Your task to perform on an android device: turn off javascript in the chrome app Image 0: 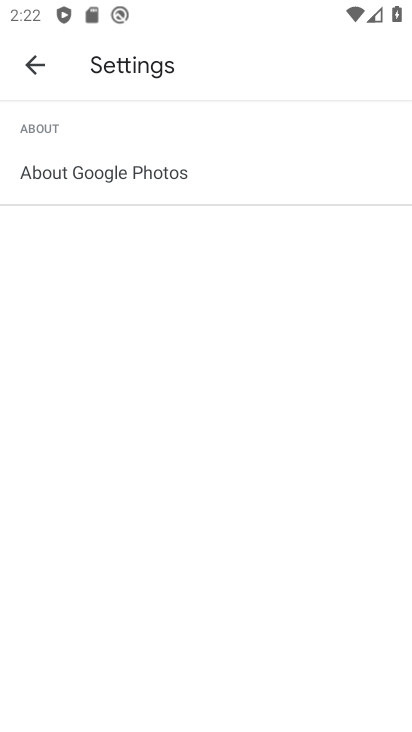
Step 0: press home button
Your task to perform on an android device: turn off javascript in the chrome app Image 1: 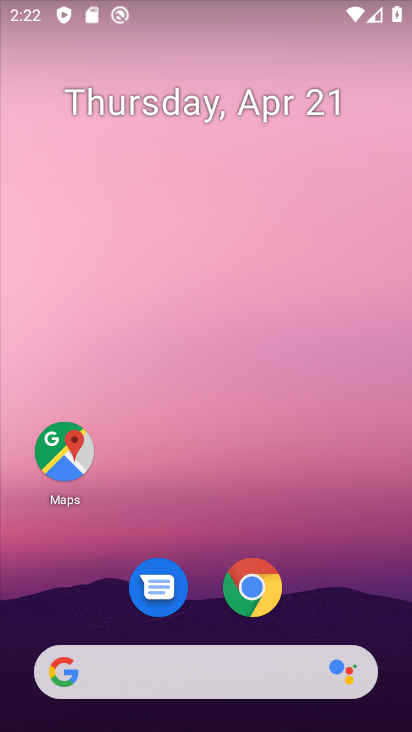
Step 1: drag from (336, 590) to (333, 109)
Your task to perform on an android device: turn off javascript in the chrome app Image 2: 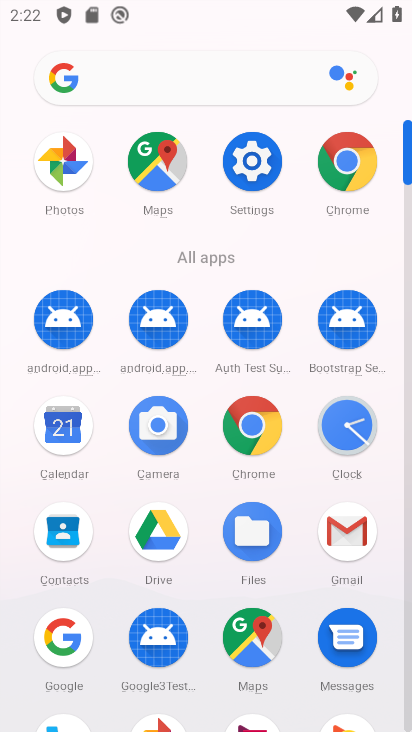
Step 2: click (254, 415)
Your task to perform on an android device: turn off javascript in the chrome app Image 3: 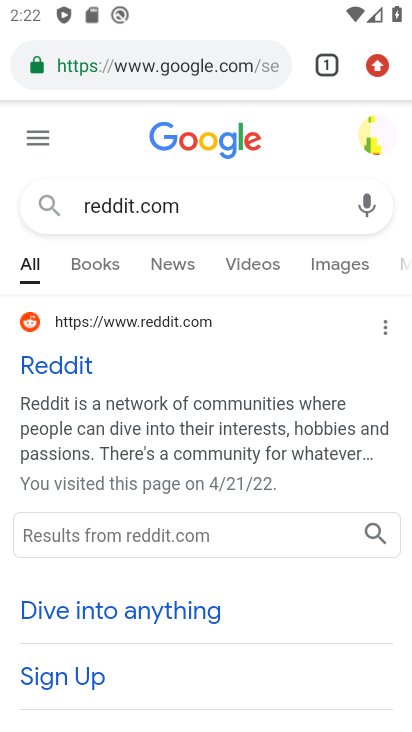
Step 3: click (378, 68)
Your task to perform on an android device: turn off javascript in the chrome app Image 4: 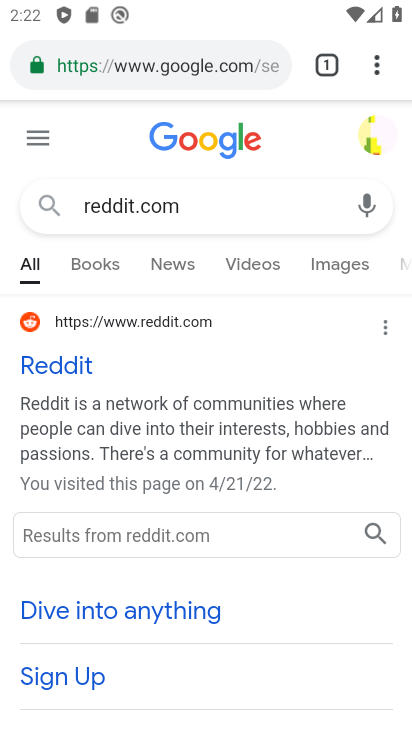
Step 4: click (379, 67)
Your task to perform on an android device: turn off javascript in the chrome app Image 5: 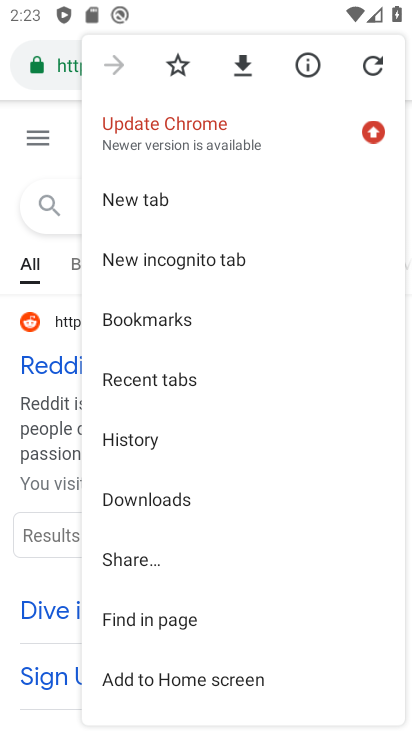
Step 5: drag from (333, 550) to (344, 338)
Your task to perform on an android device: turn off javascript in the chrome app Image 6: 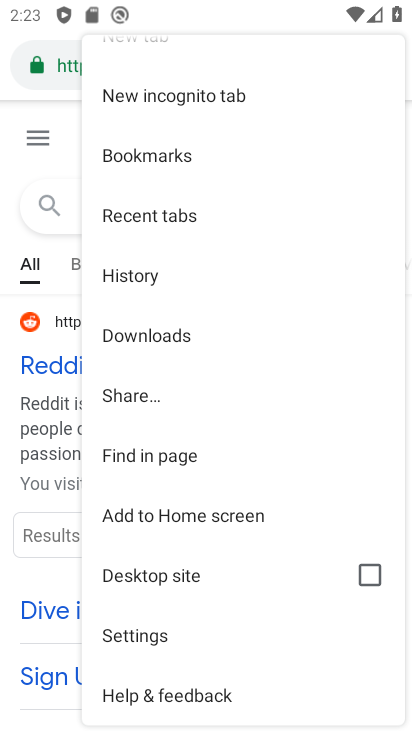
Step 6: click (153, 635)
Your task to perform on an android device: turn off javascript in the chrome app Image 7: 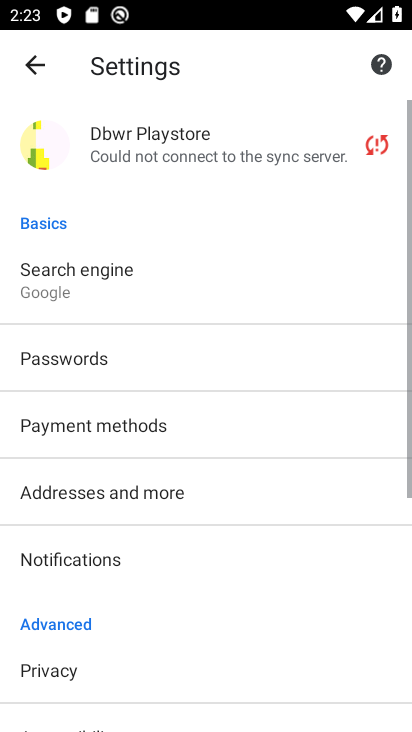
Step 7: drag from (287, 602) to (289, 448)
Your task to perform on an android device: turn off javascript in the chrome app Image 8: 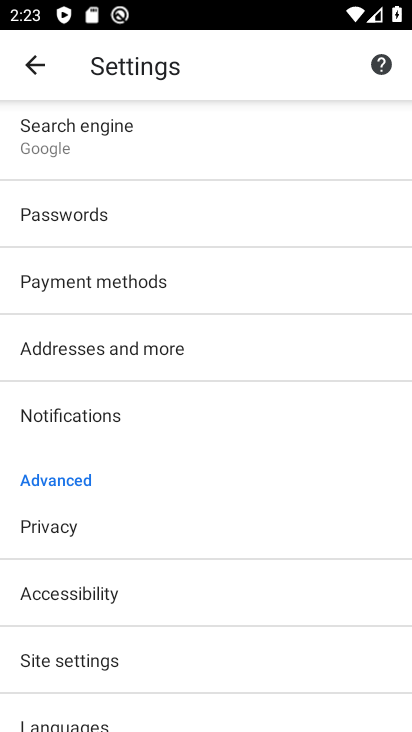
Step 8: drag from (292, 612) to (304, 451)
Your task to perform on an android device: turn off javascript in the chrome app Image 9: 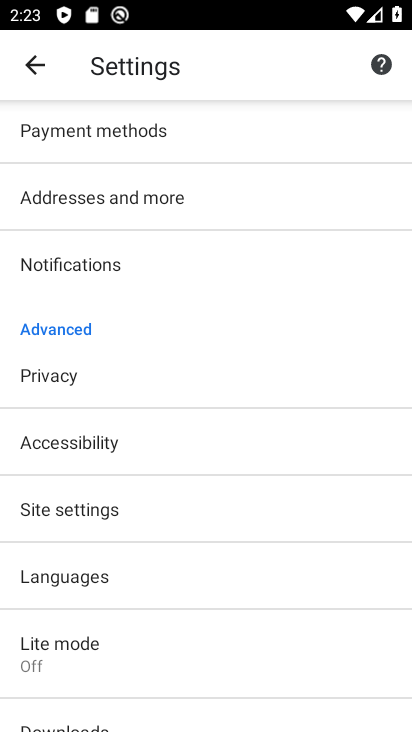
Step 9: drag from (276, 634) to (298, 487)
Your task to perform on an android device: turn off javascript in the chrome app Image 10: 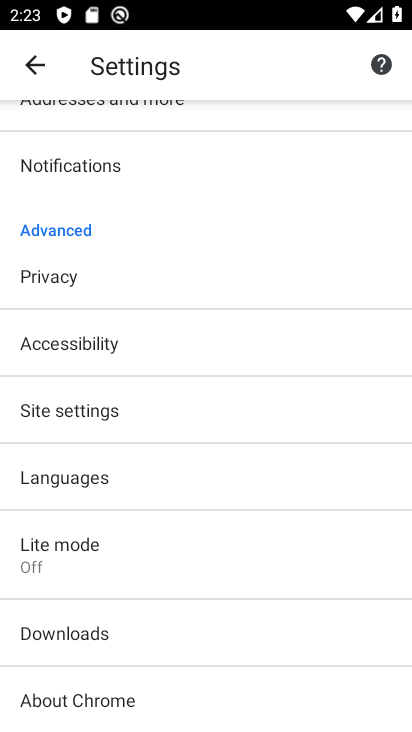
Step 10: drag from (267, 682) to (287, 466)
Your task to perform on an android device: turn off javascript in the chrome app Image 11: 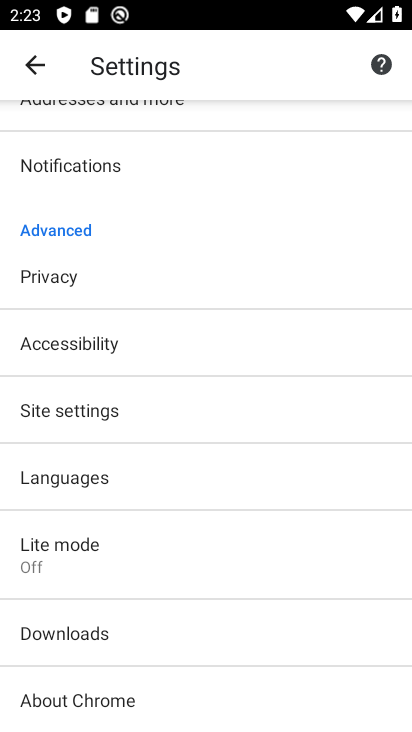
Step 11: click (282, 400)
Your task to perform on an android device: turn off javascript in the chrome app Image 12: 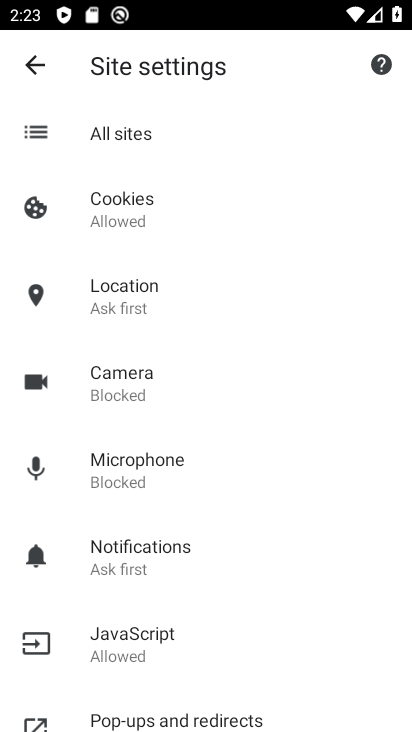
Step 12: drag from (322, 528) to (326, 440)
Your task to perform on an android device: turn off javascript in the chrome app Image 13: 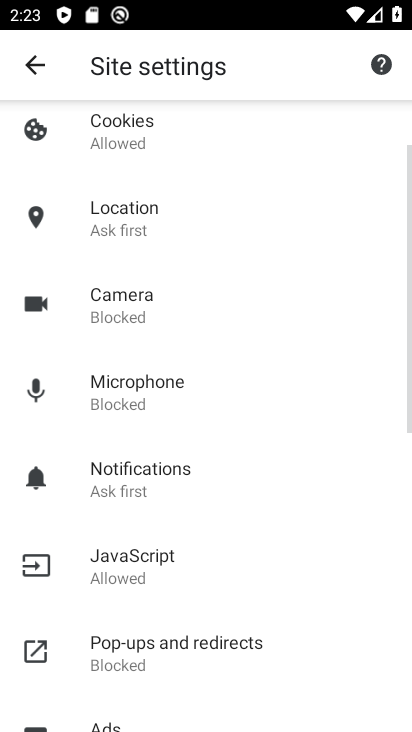
Step 13: drag from (325, 554) to (324, 405)
Your task to perform on an android device: turn off javascript in the chrome app Image 14: 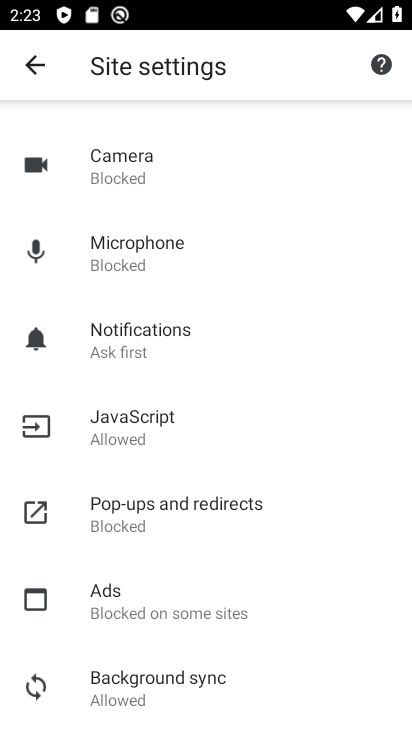
Step 14: drag from (341, 548) to (333, 411)
Your task to perform on an android device: turn off javascript in the chrome app Image 15: 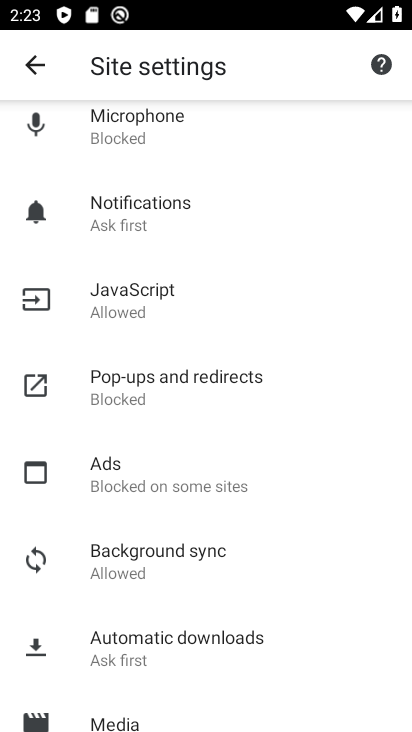
Step 15: click (247, 299)
Your task to perform on an android device: turn off javascript in the chrome app Image 16: 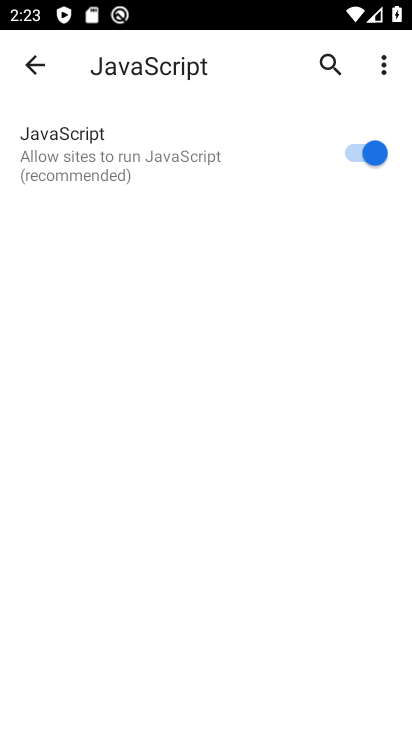
Step 16: click (368, 153)
Your task to perform on an android device: turn off javascript in the chrome app Image 17: 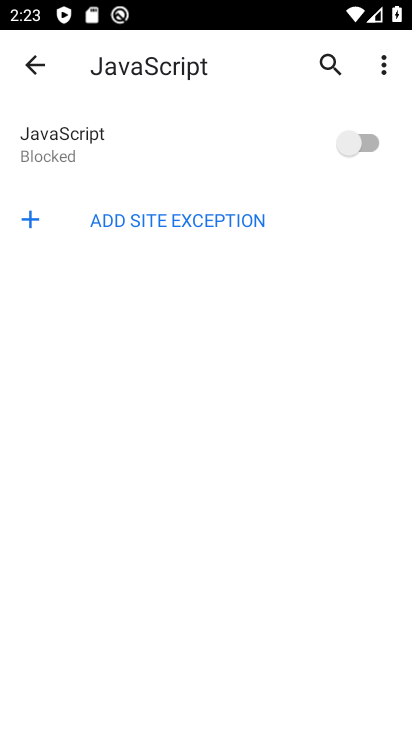
Step 17: task complete